Your task to perform on an android device: add a label to a message in the gmail app Image 0: 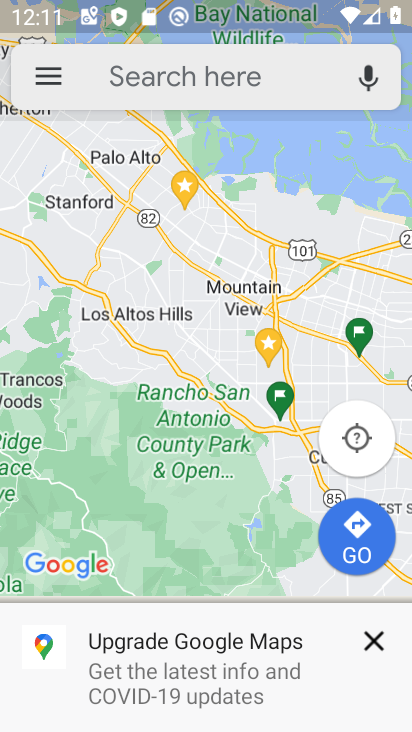
Step 0: press home button
Your task to perform on an android device: add a label to a message in the gmail app Image 1: 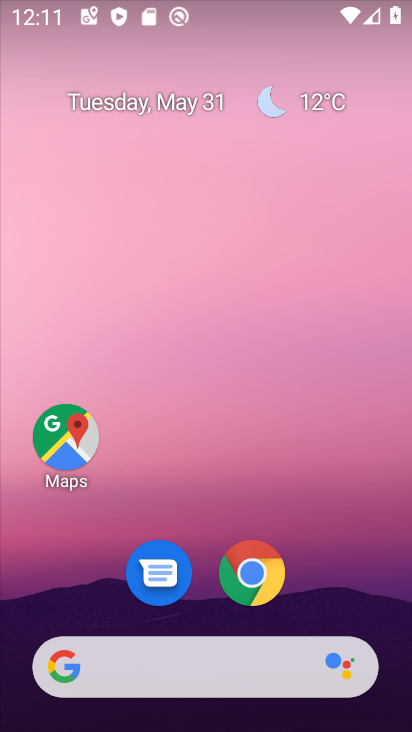
Step 1: drag from (370, 359) to (356, 36)
Your task to perform on an android device: add a label to a message in the gmail app Image 2: 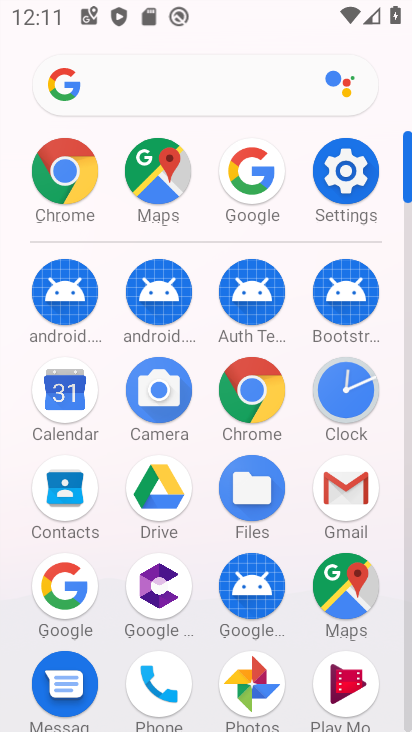
Step 2: click (359, 487)
Your task to perform on an android device: add a label to a message in the gmail app Image 3: 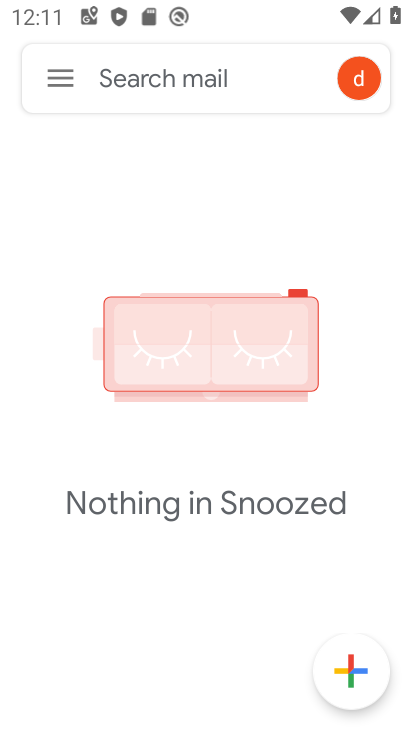
Step 3: click (33, 80)
Your task to perform on an android device: add a label to a message in the gmail app Image 4: 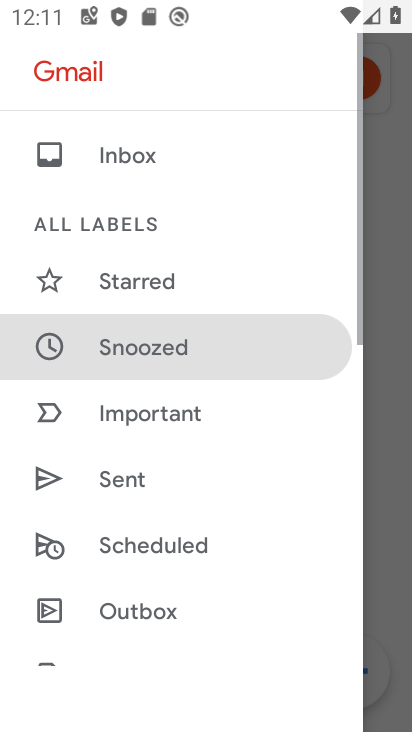
Step 4: click (75, 154)
Your task to perform on an android device: add a label to a message in the gmail app Image 5: 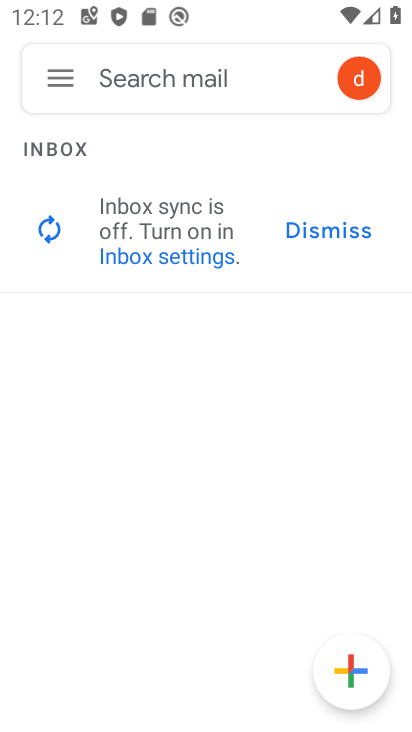
Step 5: task complete